Your task to perform on an android device: Show me popular games on the Play Store Image 0: 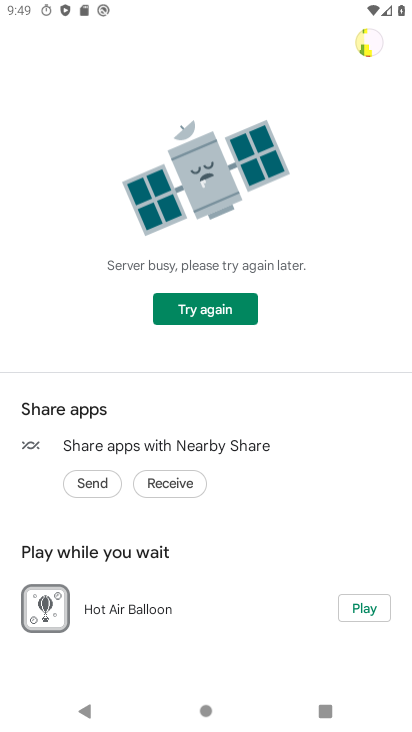
Step 0: press back button
Your task to perform on an android device: Show me popular games on the Play Store Image 1: 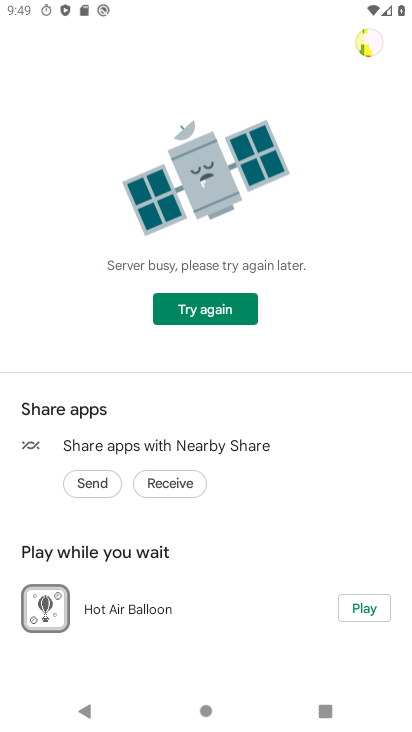
Step 1: press back button
Your task to perform on an android device: Show me popular games on the Play Store Image 2: 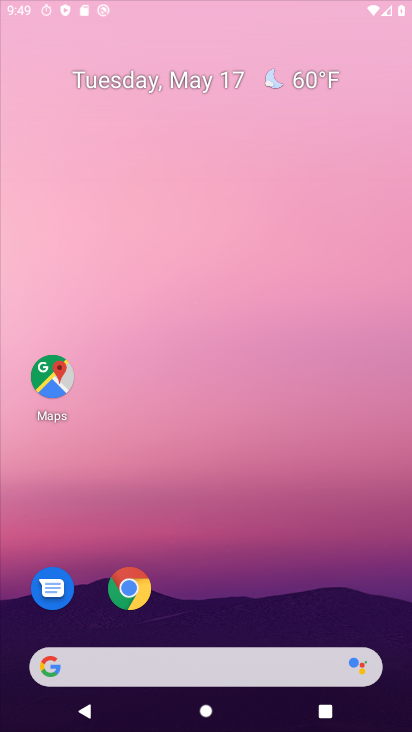
Step 2: press back button
Your task to perform on an android device: Show me popular games on the Play Store Image 3: 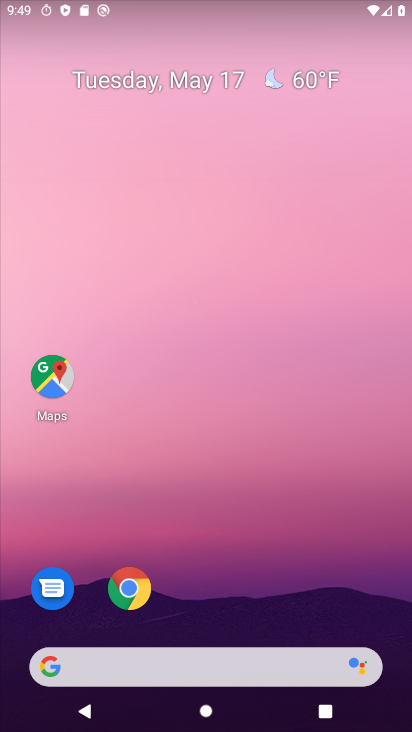
Step 3: drag from (258, 699) to (381, 170)
Your task to perform on an android device: Show me popular games on the Play Store Image 4: 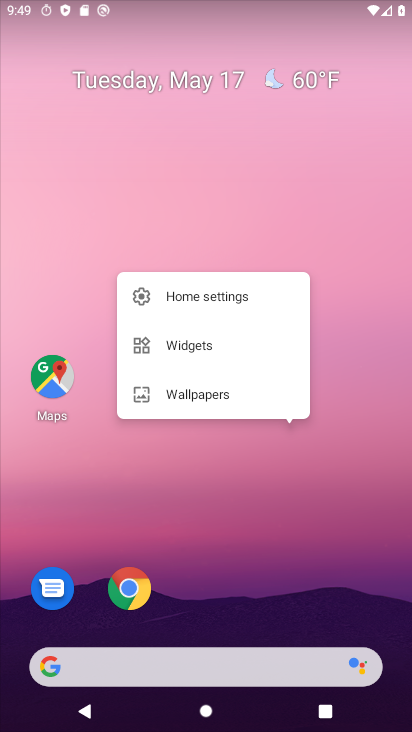
Step 4: drag from (272, 625) to (363, 213)
Your task to perform on an android device: Show me popular games on the Play Store Image 5: 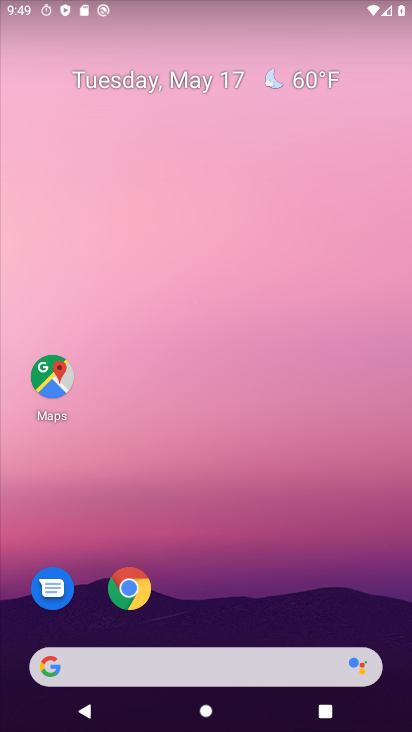
Step 5: drag from (119, 153) to (107, 85)
Your task to perform on an android device: Show me popular games on the Play Store Image 6: 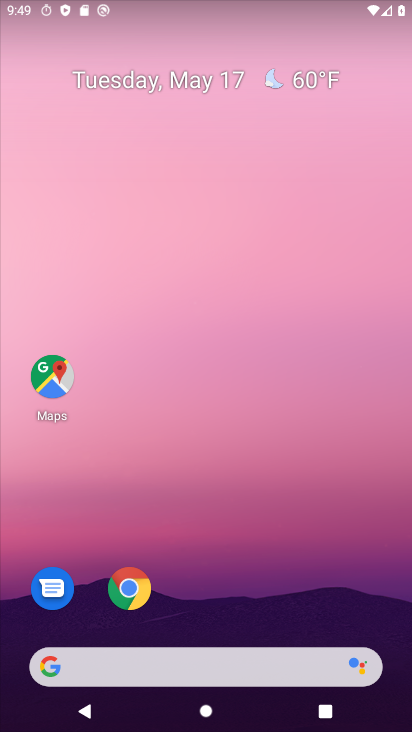
Step 6: drag from (321, 568) to (161, 9)
Your task to perform on an android device: Show me popular games on the Play Store Image 7: 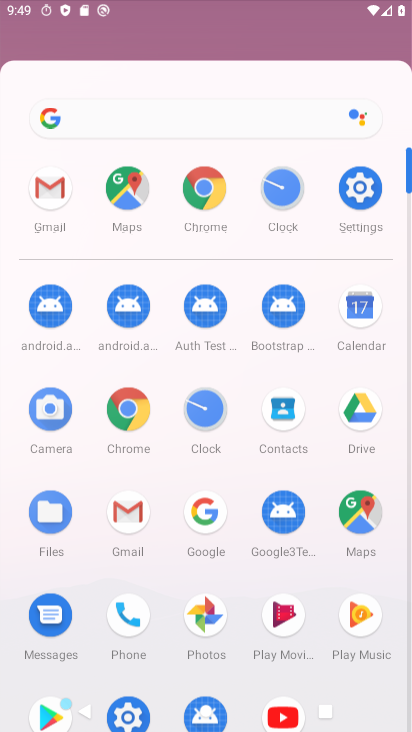
Step 7: drag from (213, 398) to (157, 181)
Your task to perform on an android device: Show me popular games on the Play Store Image 8: 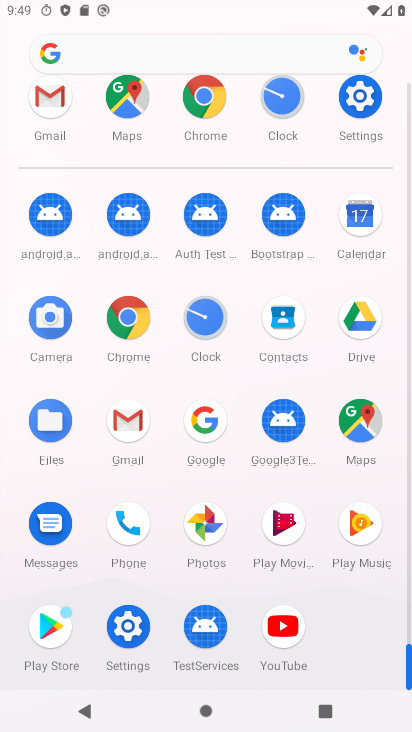
Step 8: click (51, 650)
Your task to perform on an android device: Show me popular games on the Play Store Image 9: 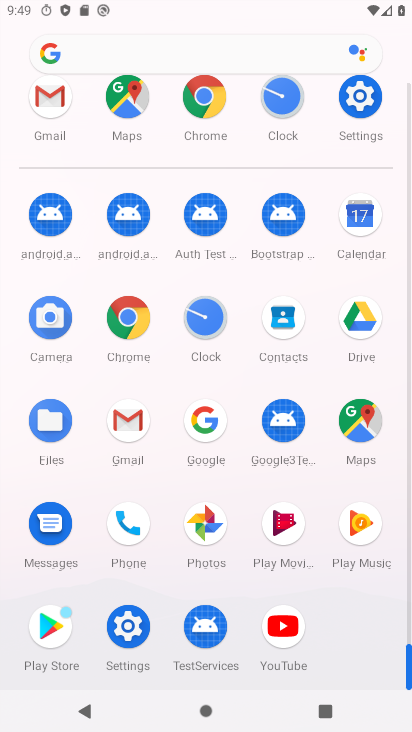
Step 9: click (51, 650)
Your task to perform on an android device: Show me popular games on the Play Store Image 10: 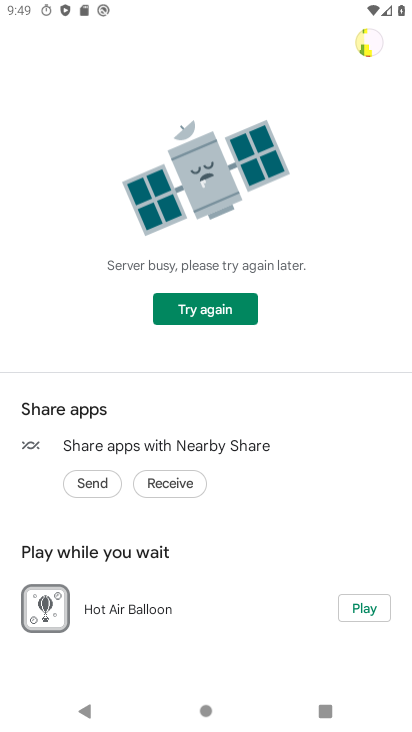
Step 10: task complete